Your task to perform on an android device: Open maps Image 0: 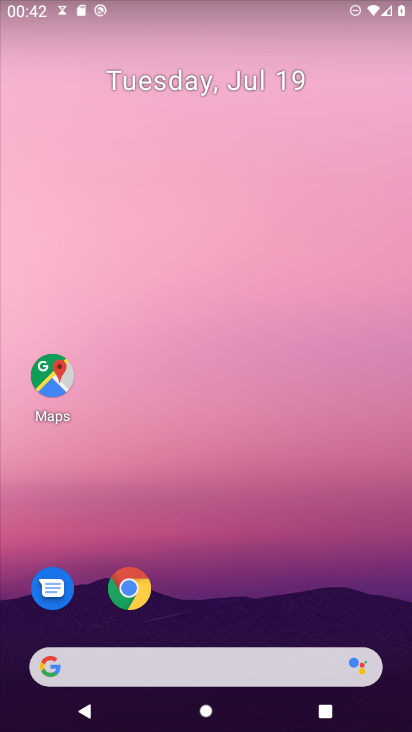
Step 0: press home button
Your task to perform on an android device: Open maps Image 1: 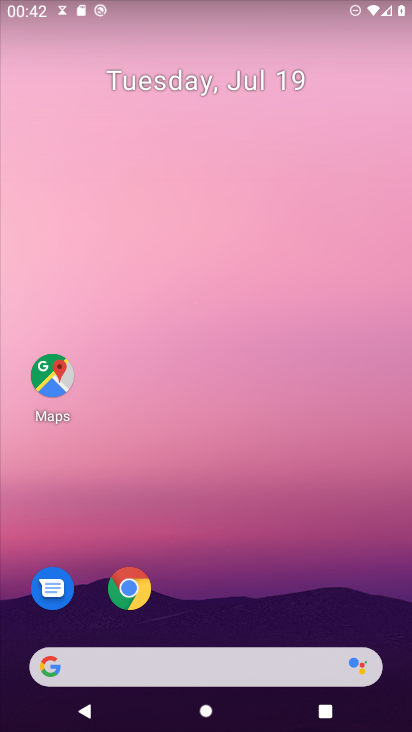
Step 1: click (55, 386)
Your task to perform on an android device: Open maps Image 2: 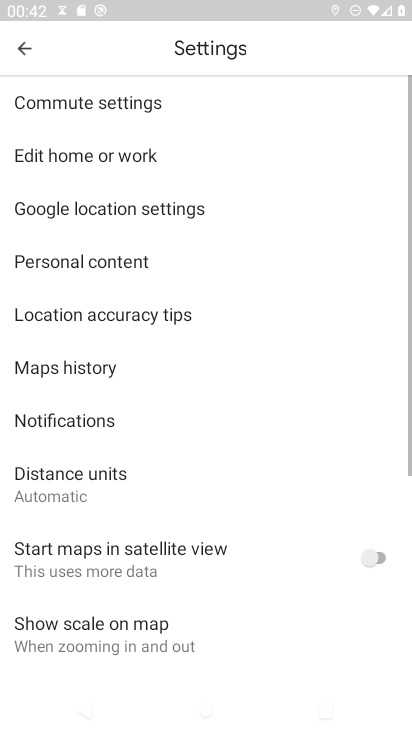
Step 2: click (22, 51)
Your task to perform on an android device: Open maps Image 3: 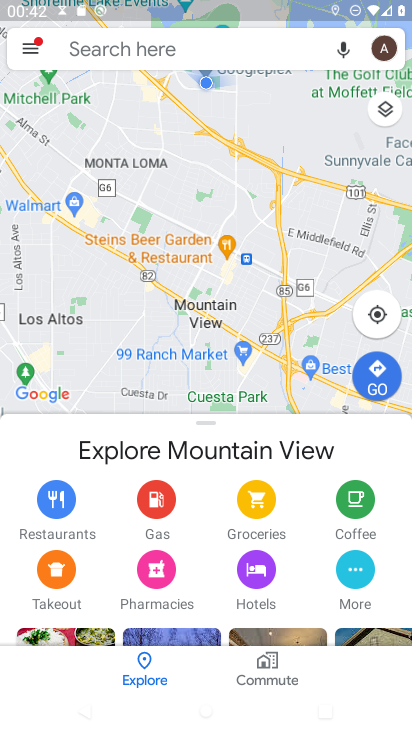
Step 3: task complete